Your task to perform on an android device: toggle translation in the chrome app Image 0: 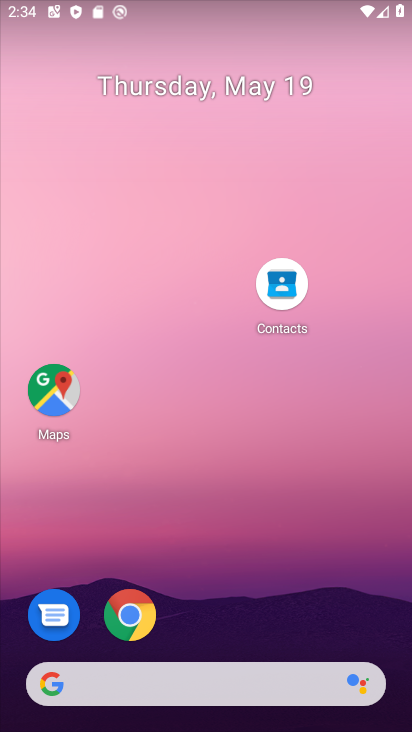
Step 0: drag from (255, 669) to (280, 160)
Your task to perform on an android device: toggle translation in the chrome app Image 1: 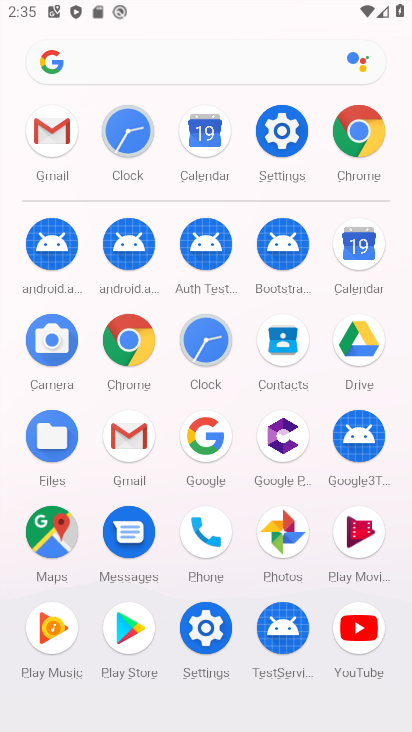
Step 1: click (388, 145)
Your task to perform on an android device: toggle translation in the chrome app Image 2: 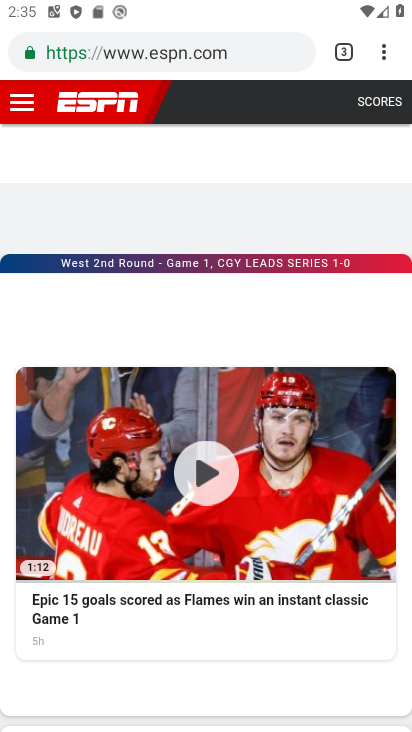
Step 2: click (388, 51)
Your task to perform on an android device: toggle translation in the chrome app Image 3: 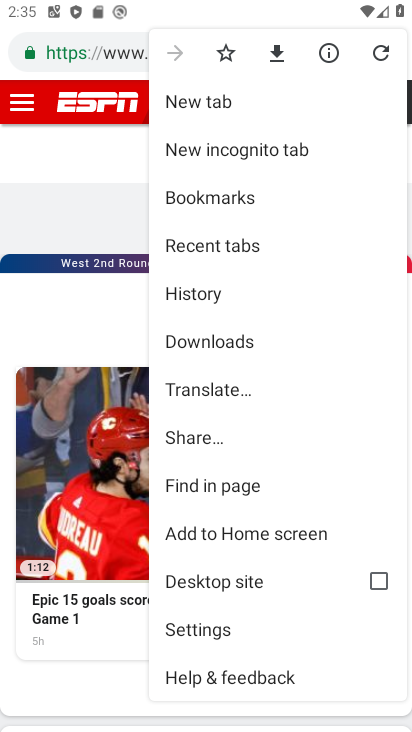
Step 3: click (284, 397)
Your task to perform on an android device: toggle translation in the chrome app Image 4: 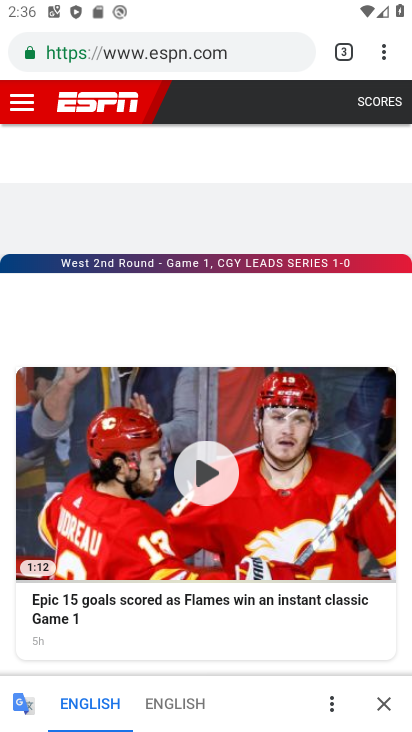
Step 4: click (336, 706)
Your task to perform on an android device: toggle translation in the chrome app Image 5: 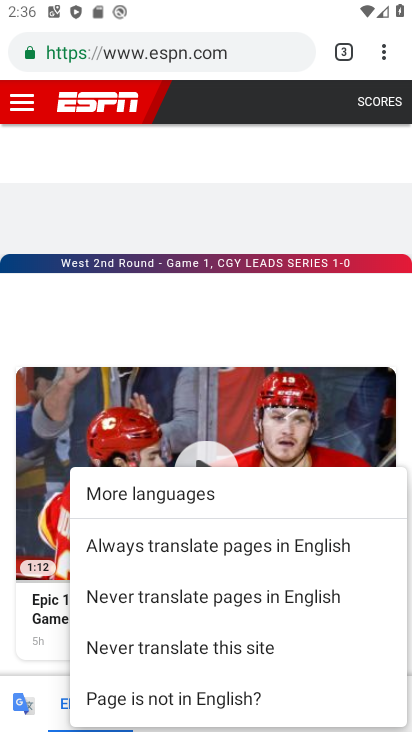
Step 5: click (301, 664)
Your task to perform on an android device: toggle translation in the chrome app Image 6: 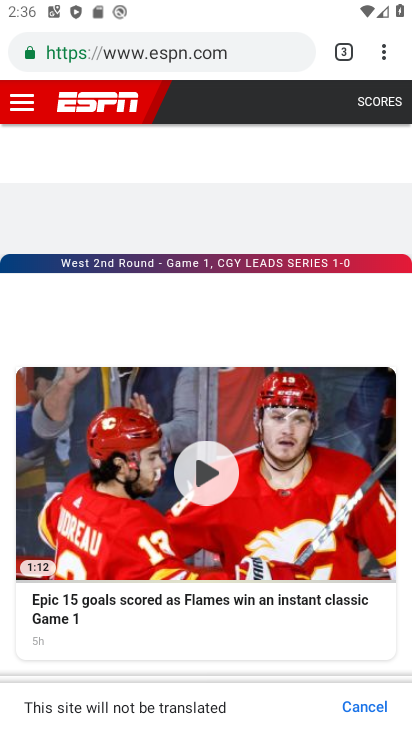
Step 6: task complete